Your task to perform on an android device: turn on translation in the chrome app Image 0: 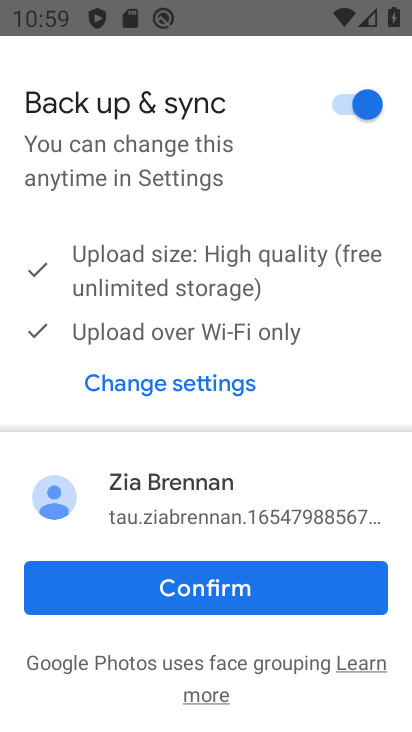
Step 0: press back button
Your task to perform on an android device: turn on translation in the chrome app Image 1: 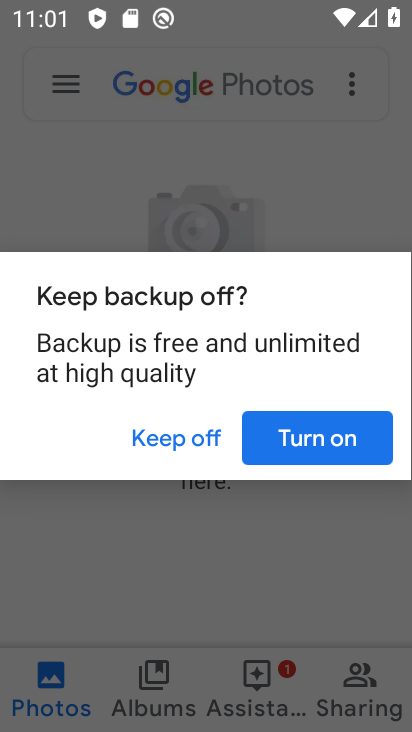
Step 1: press back button
Your task to perform on an android device: turn on translation in the chrome app Image 2: 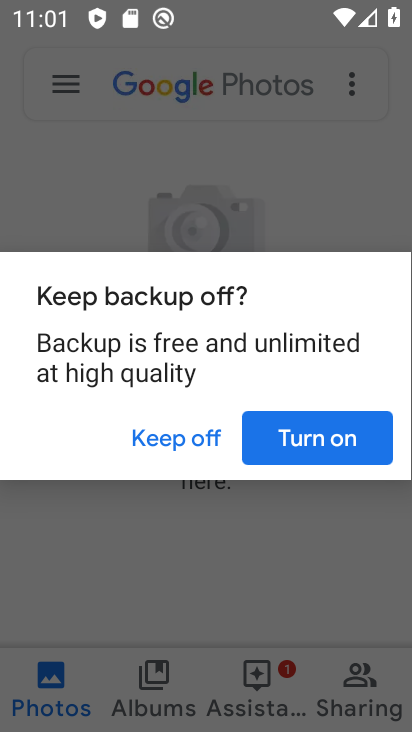
Step 2: press home button
Your task to perform on an android device: turn on translation in the chrome app Image 3: 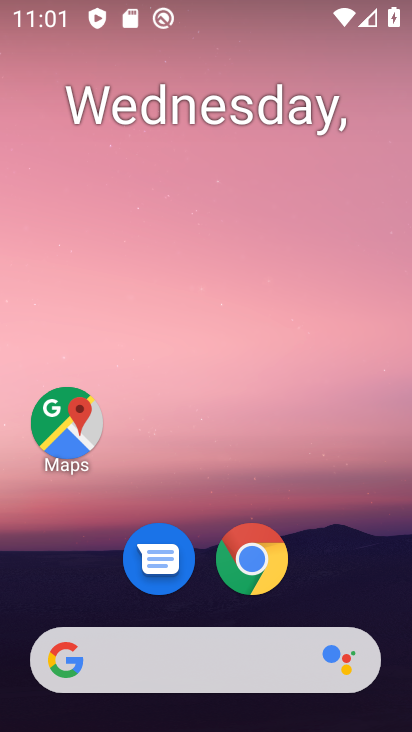
Step 3: drag from (62, 577) to (168, 43)
Your task to perform on an android device: turn on translation in the chrome app Image 4: 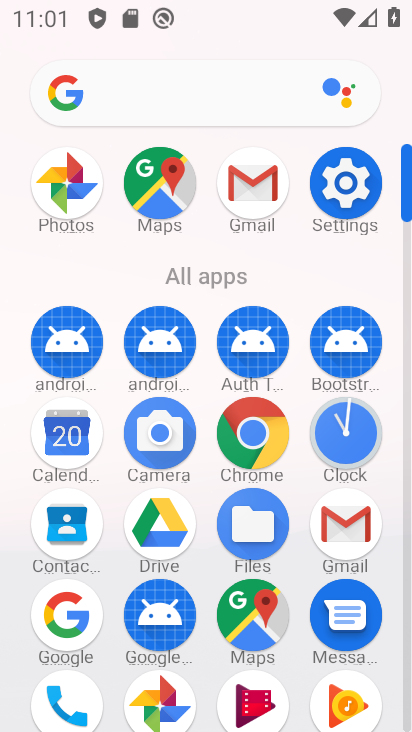
Step 4: click (236, 439)
Your task to perform on an android device: turn on translation in the chrome app Image 5: 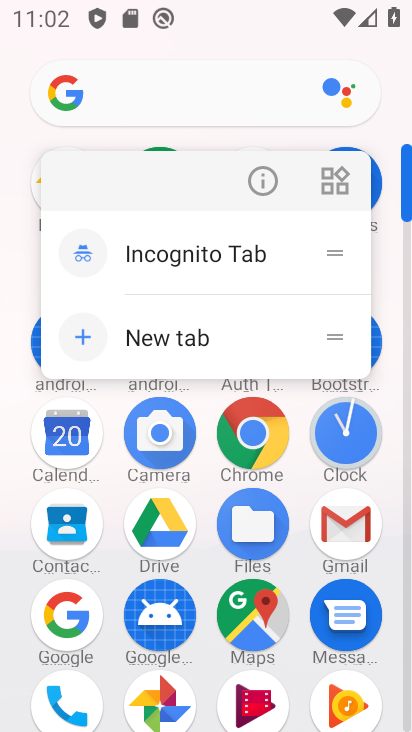
Step 5: click (245, 439)
Your task to perform on an android device: turn on translation in the chrome app Image 6: 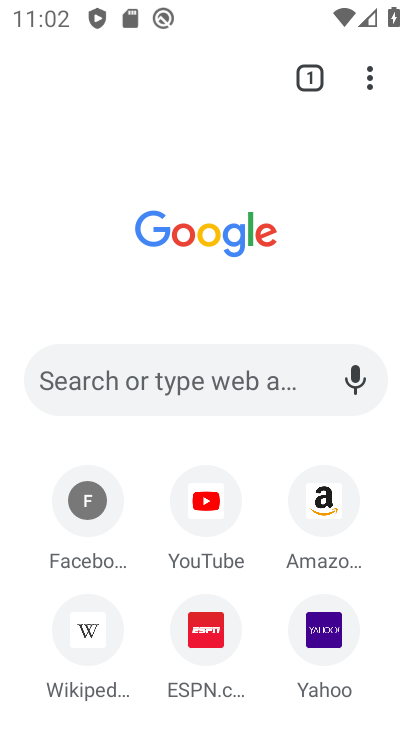
Step 6: drag from (368, 74) to (147, 624)
Your task to perform on an android device: turn on translation in the chrome app Image 7: 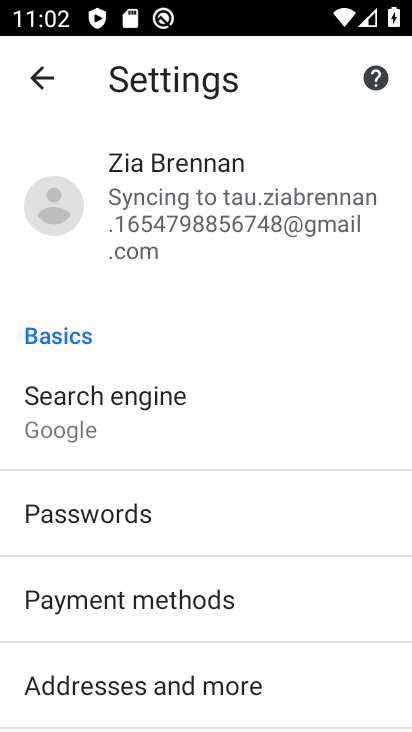
Step 7: drag from (126, 604) to (265, 11)
Your task to perform on an android device: turn on translation in the chrome app Image 8: 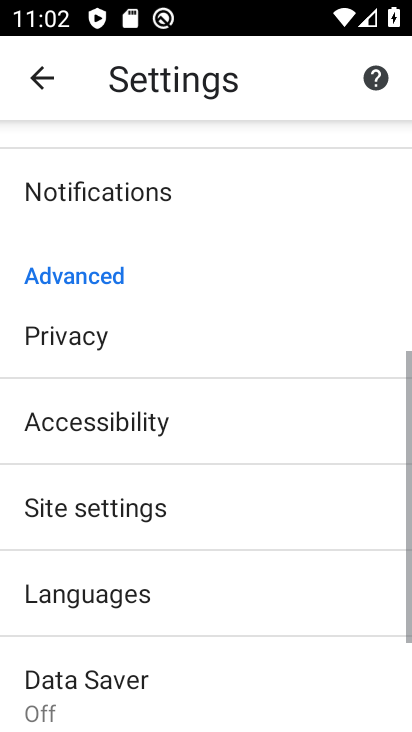
Step 8: drag from (136, 619) to (166, 417)
Your task to perform on an android device: turn on translation in the chrome app Image 9: 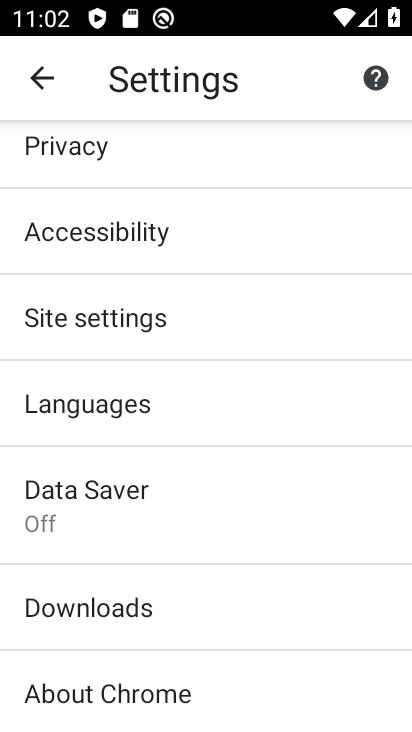
Step 9: click (126, 399)
Your task to perform on an android device: turn on translation in the chrome app Image 10: 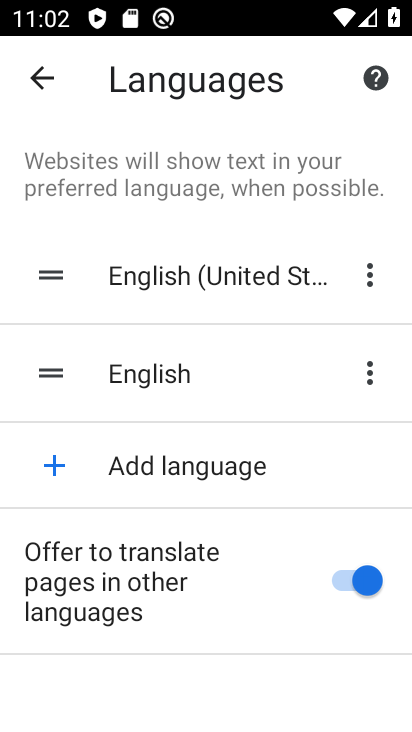
Step 10: task complete